Your task to perform on an android device: Open calendar and show me the first week of next month Image 0: 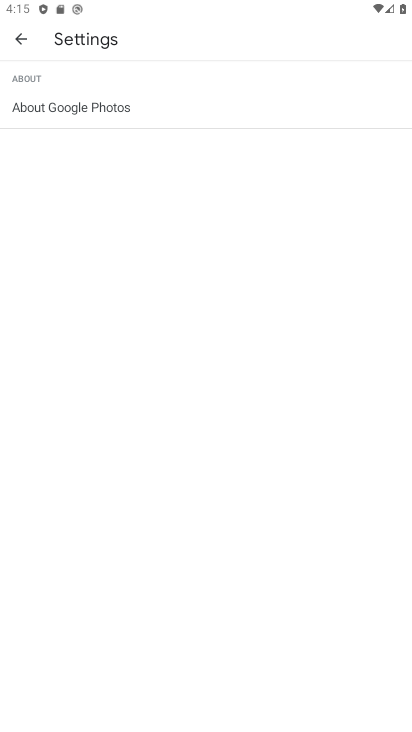
Step 0: press home button
Your task to perform on an android device: Open calendar and show me the first week of next month Image 1: 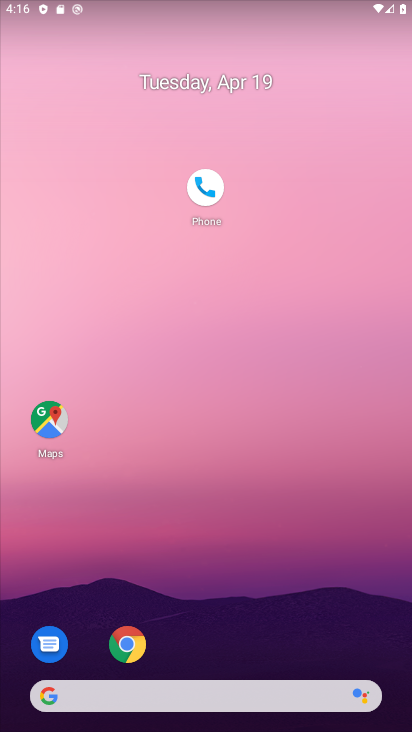
Step 1: drag from (313, 637) to (409, 121)
Your task to perform on an android device: Open calendar and show me the first week of next month Image 2: 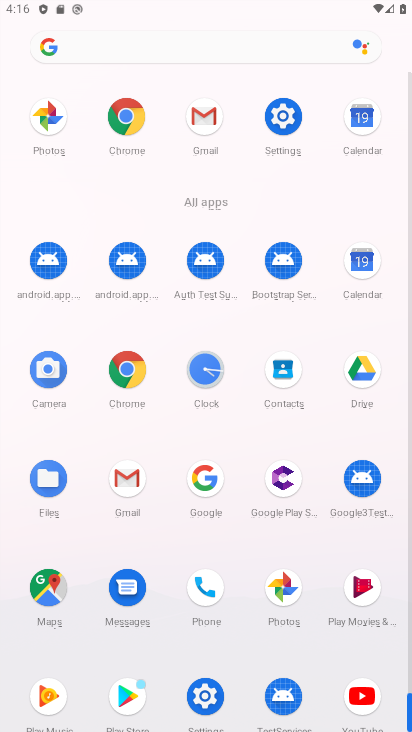
Step 2: drag from (298, 422) to (320, 48)
Your task to perform on an android device: Open calendar and show me the first week of next month Image 3: 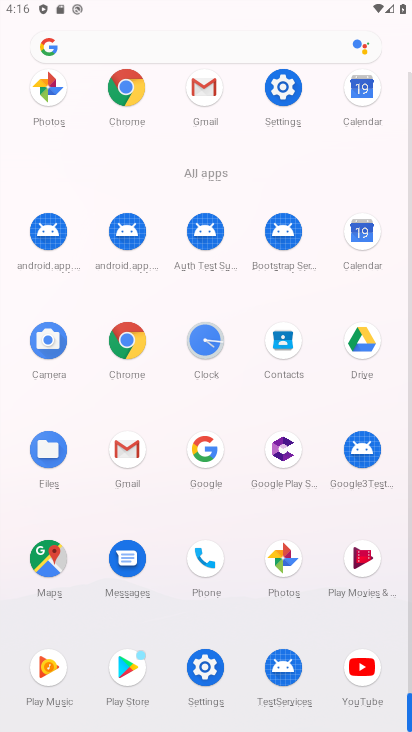
Step 3: drag from (257, 485) to (288, 469)
Your task to perform on an android device: Open calendar and show me the first week of next month Image 4: 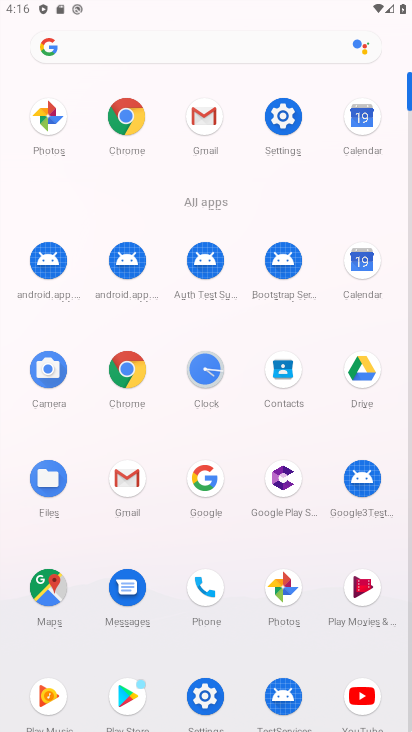
Step 4: click (355, 265)
Your task to perform on an android device: Open calendar and show me the first week of next month Image 5: 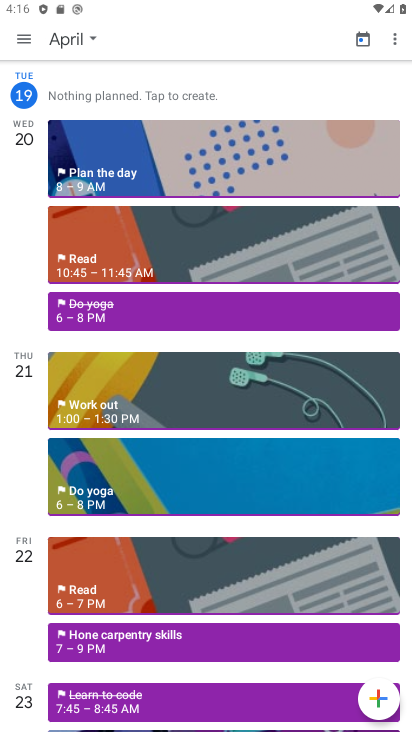
Step 5: click (32, 40)
Your task to perform on an android device: Open calendar and show me the first week of next month Image 6: 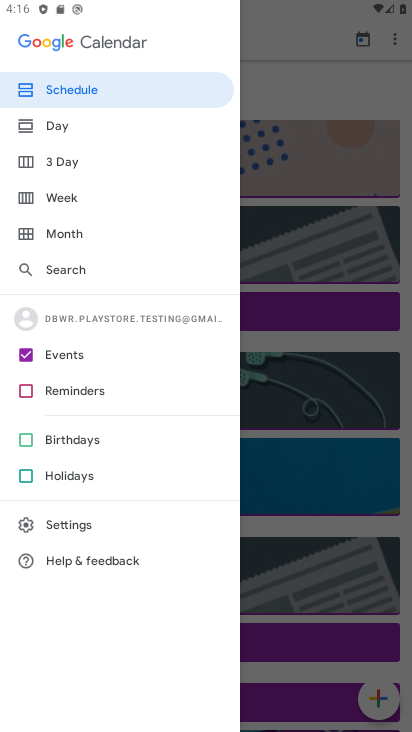
Step 6: click (70, 199)
Your task to perform on an android device: Open calendar and show me the first week of next month Image 7: 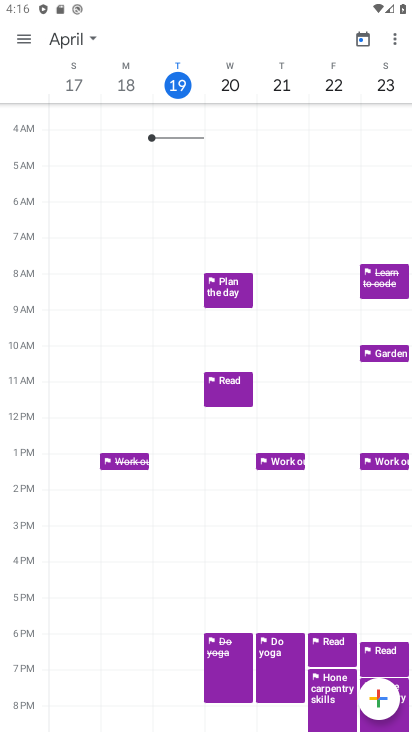
Step 7: click (80, 30)
Your task to perform on an android device: Open calendar and show me the first week of next month Image 8: 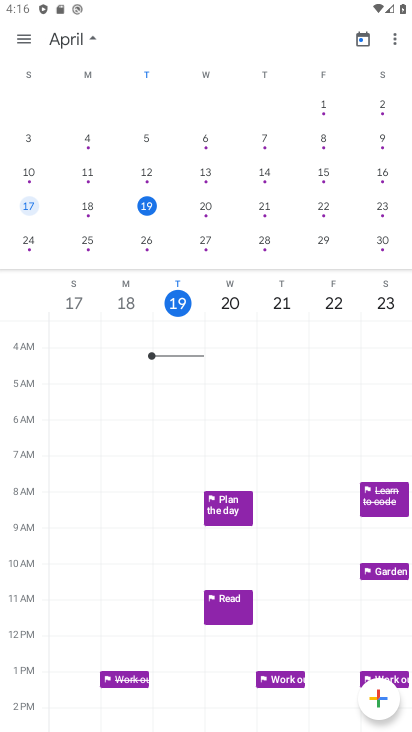
Step 8: drag from (381, 206) to (3, 194)
Your task to perform on an android device: Open calendar and show me the first week of next month Image 9: 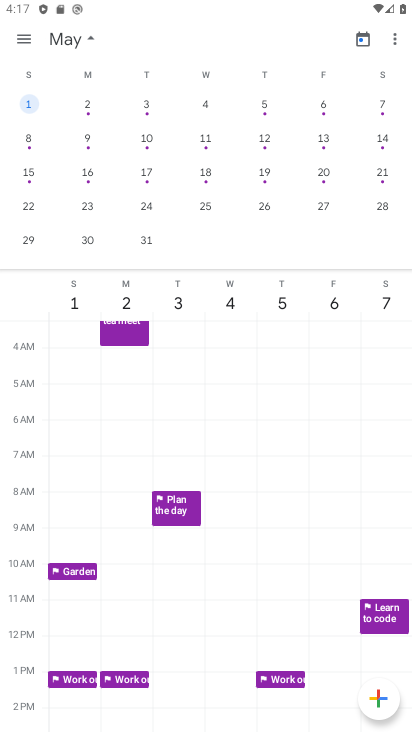
Step 9: click (324, 106)
Your task to perform on an android device: Open calendar and show me the first week of next month Image 10: 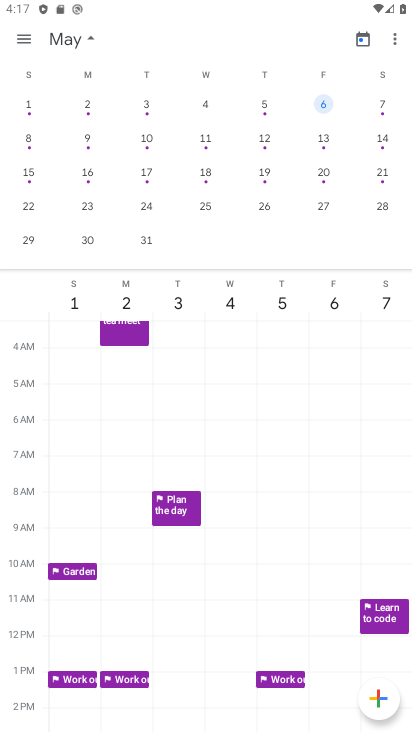
Step 10: task complete